Your task to perform on an android device: Open Android settings Image 0: 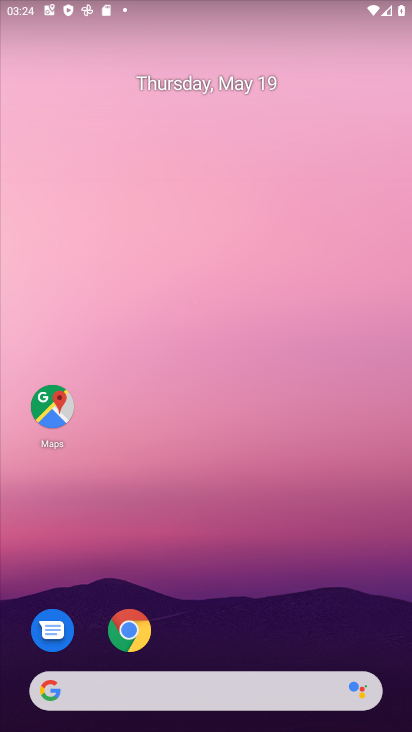
Step 0: drag from (393, 653) to (368, 148)
Your task to perform on an android device: Open Android settings Image 1: 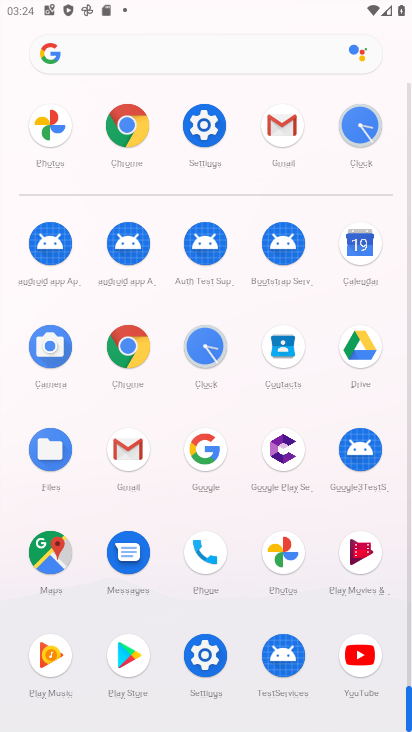
Step 1: click (204, 654)
Your task to perform on an android device: Open Android settings Image 2: 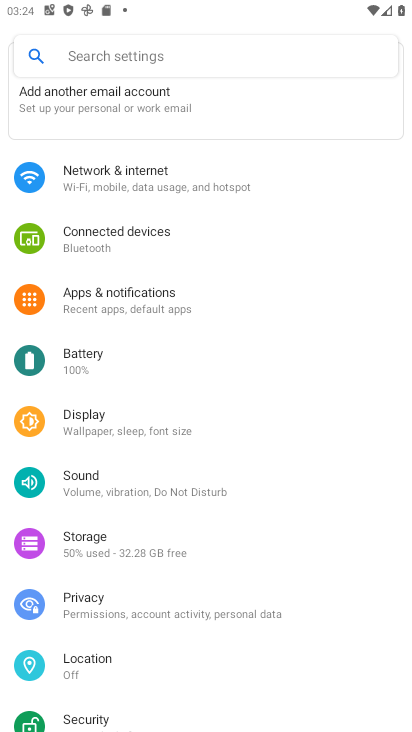
Step 2: drag from (313, 643) to (298, 244)
Your task to perform on an android device: Open Android settings Image 3: 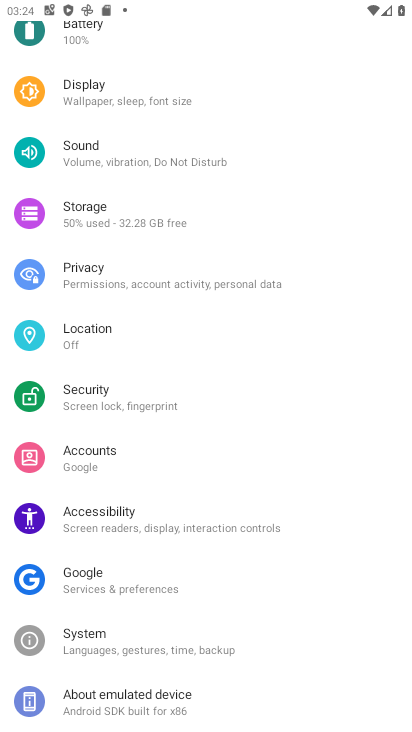
Step 3: click (110, 710)
Your task to perform on an android device: Open Android settings Image 4: 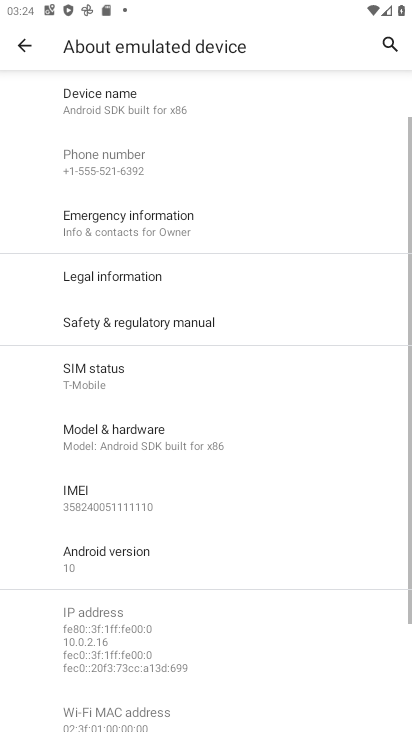
Step 4: task complete